Your task to perform on an android device: turn off airplane mode Image 0: 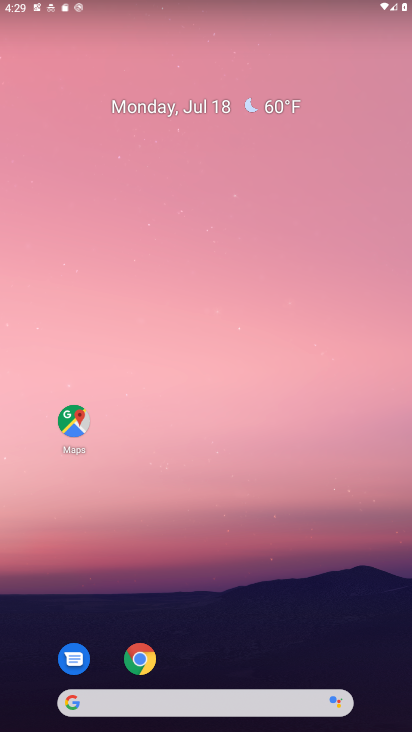
Step 0: drag from (312, 644) to (357, 63)
Your task to perform on an android device: turn off airplane mode Image 1: 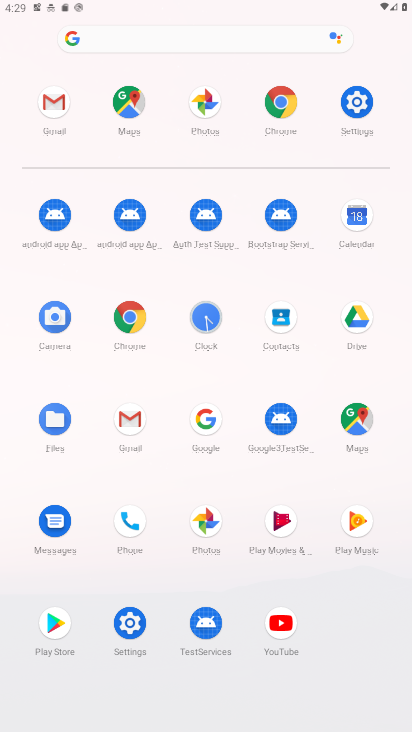
Step 1: click (358, 90)
Your task to perform on an android device: turn off airplane mode Image 2: 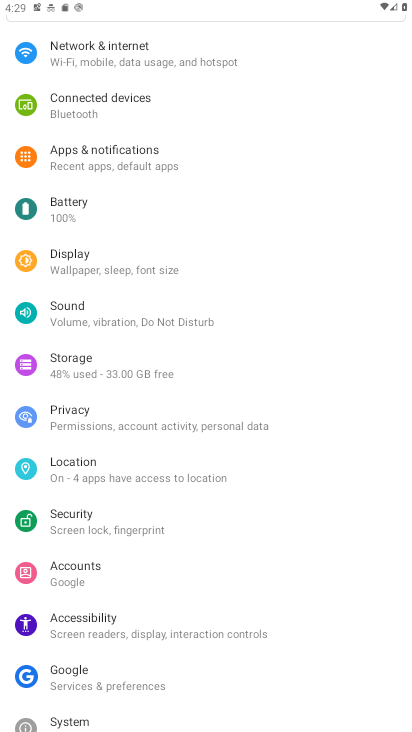
Step 2: click (158, 60)
Your task to perform on an android device: turn off airplane mode Image 3: 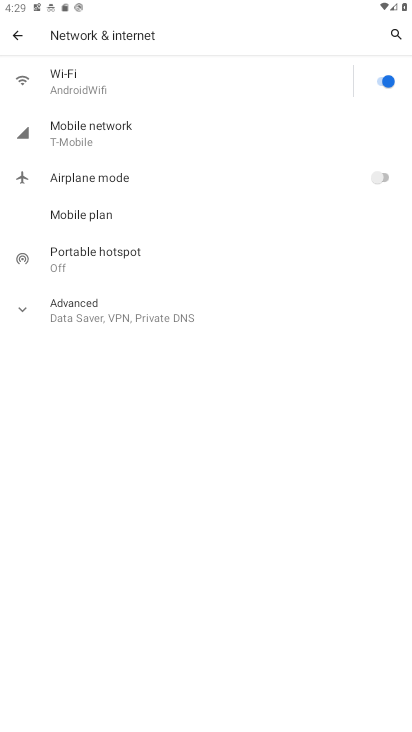
Step 3: task complete